Your task to perform on an android device: Open calendar and show me the second week of next month Image 0: 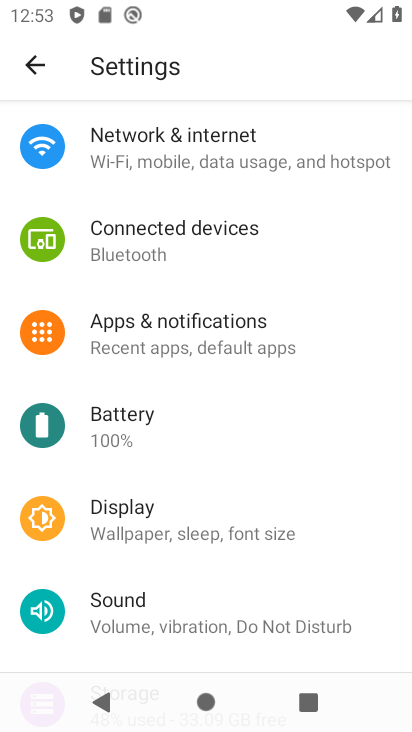
Step 0: press home button
Your task to perform on an android device: Open calendar and show me the second week of next month Image 1: 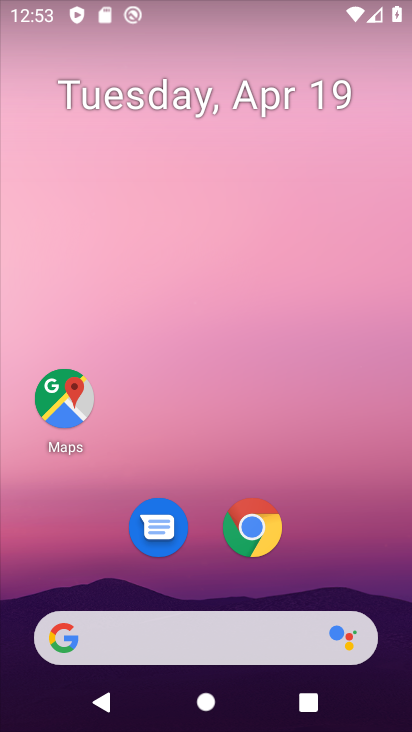
Step 1: drag from (306, 380) to (280, 53)
Your task to perform on an android device: Open calendar and show me the second week of next month Image 2: 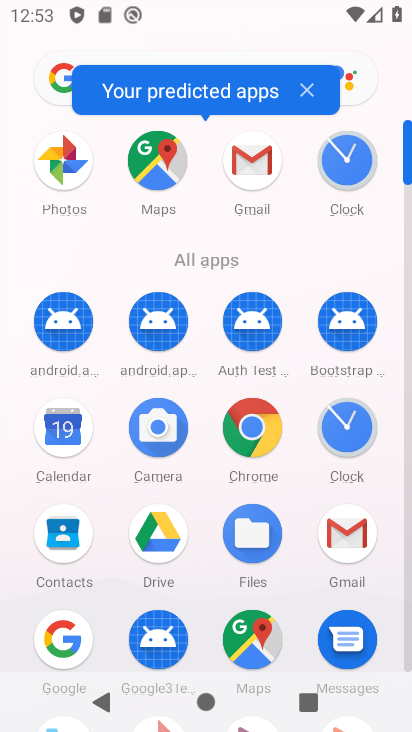
Step 2: click (62, 429)
Your task to perform on an android device: Open calendar and show me the second week of next month Image 3: 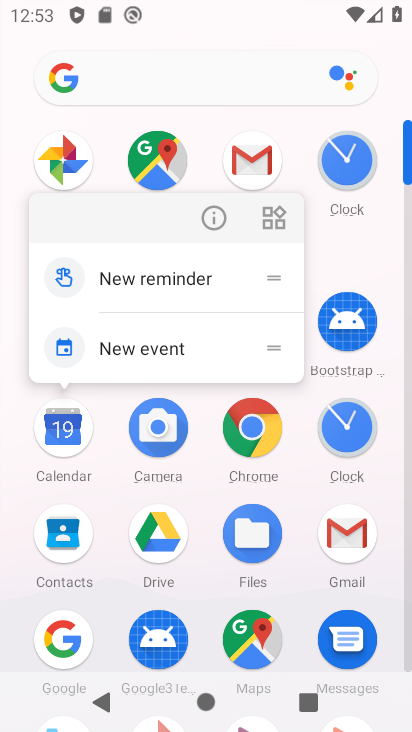
Step 3: click (70, 422)
Your task to perform on an android device: Open calendar and show me the second week of next month Image 4: 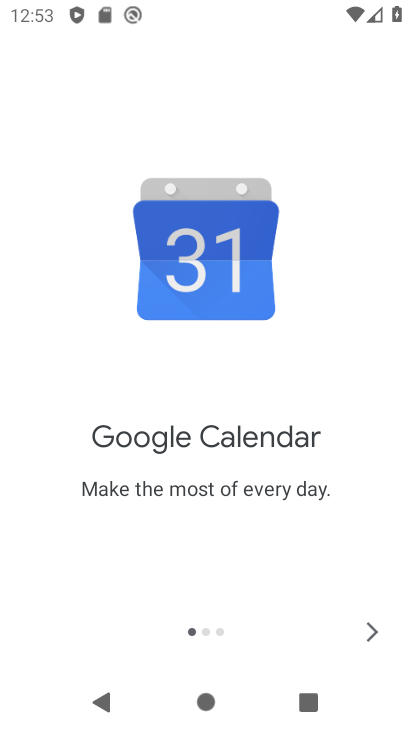
Step 4: click (375, 630)
Your task to perform on an android device: Open calendar and show me the second week of next month Image 5: 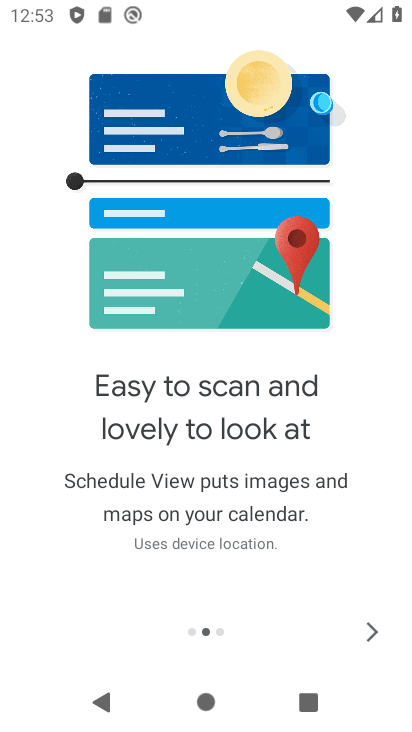
Step 5: click (375, 630)
Your task to perform on an android device: Open calendar and show me the second week of next month Image 6: 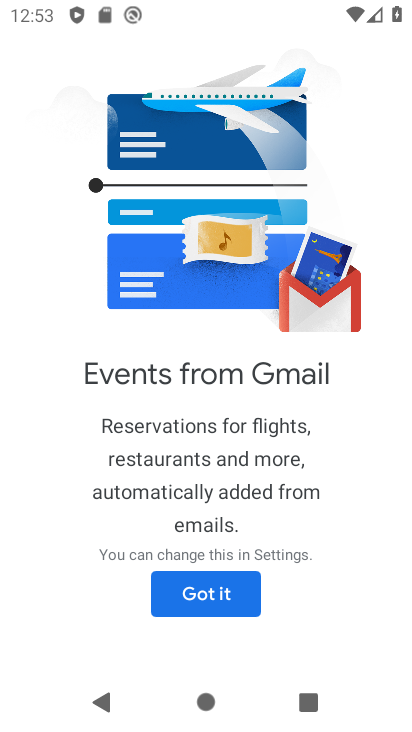
Step 6: click (375, 630)
Your task to perform on an android device: Open calendar and show me the second week of next month Image 7: 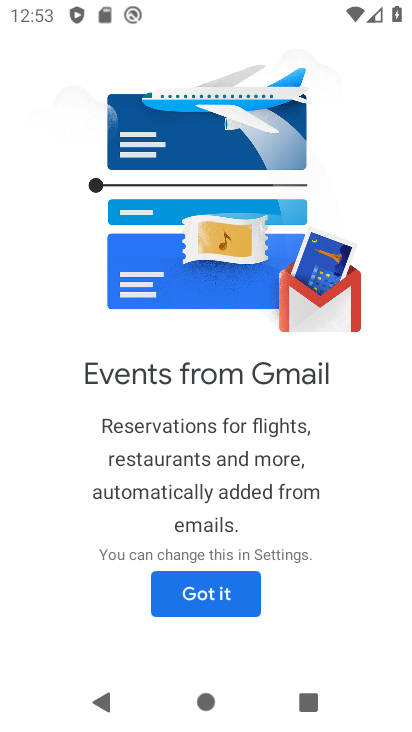
Step 7: click (197, 603)
Your task to perform on an android device: Open calendar and show me the second week of next month Image 8: 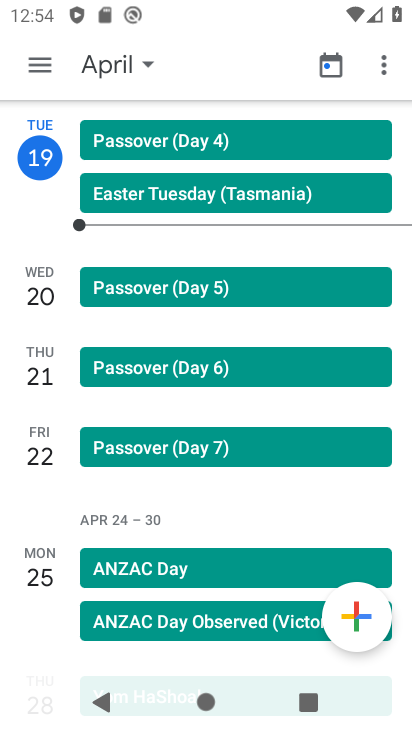
Step 8: click (136, 56)
Your task to perform on an android device: Open calendar and show me the second week of next month Image 9: 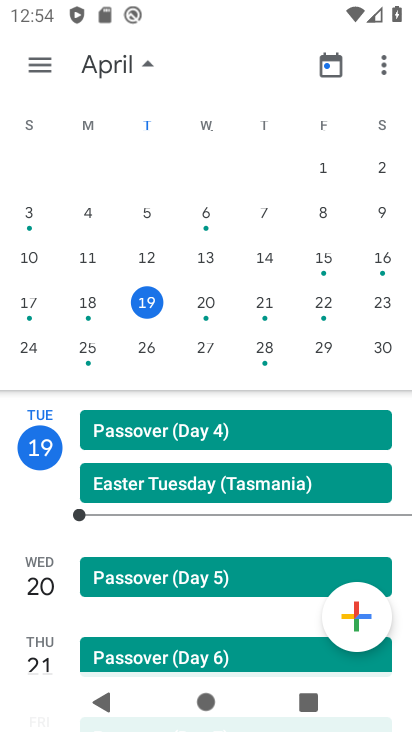
Step 9: drag from (377, 229) to (11, 225)
Your task to perform on an android device: Open calendar and show me the second week of next month Image 10: 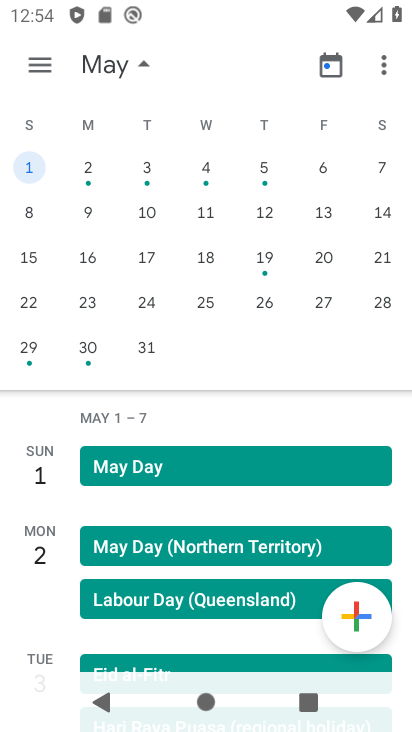
Step 10: click (144, 213)
Your task to perform on an android device: Open calendar and show me the second week of next month Image 11: 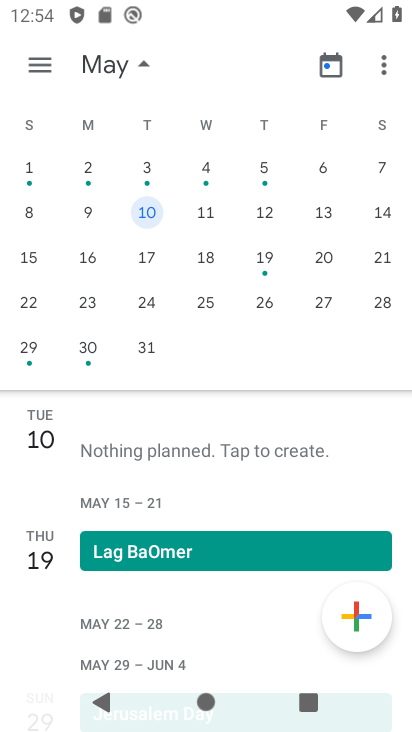
Step 11: task complete